Your task to perform on an android device: Open CNN.com Image 0: 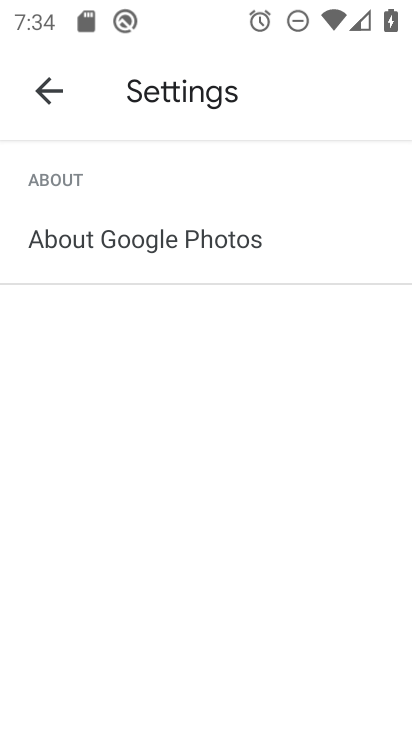
Step 0: press home button
Your task to perform on an android device: Open CNN.com Image 1: 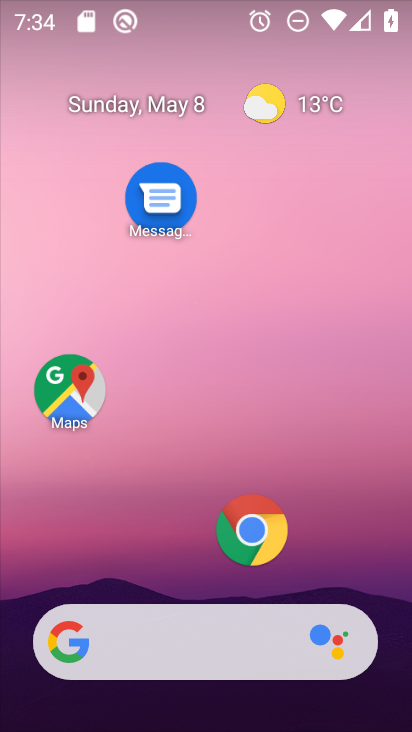
Step 1: click (258, 519)
Your task to perform on an android device: Open CNN.com Image 2: 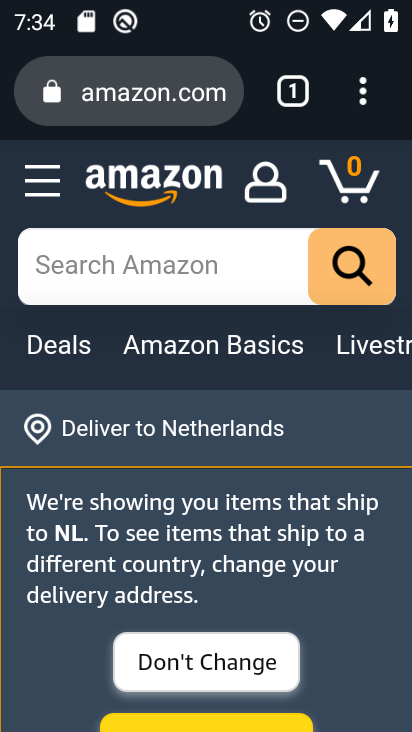
Step 2: press back button
Your task to perform on an android device: Open CNN.com Image 3: 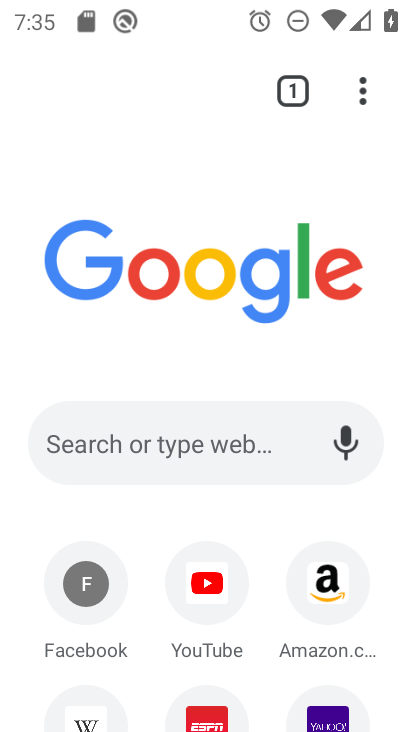
Step 3: click (184, 439)
Your task to perform on an android device: Open CNN.com Image 4: 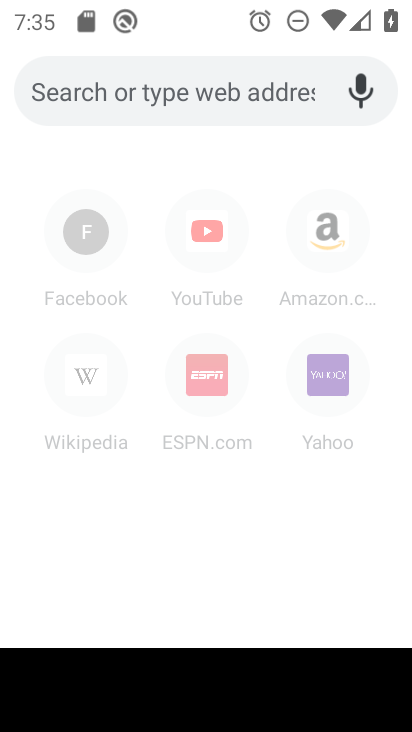
Step 4: type "cnn.com"
Your task to perform on an android device: Open CNN.com Image 5: 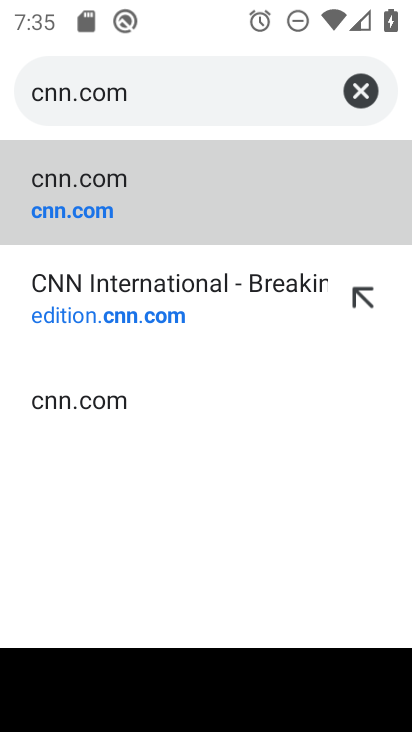
Step 5: click (168, 188)
Your task to perform on an android device: Open CNN.com Image 6: 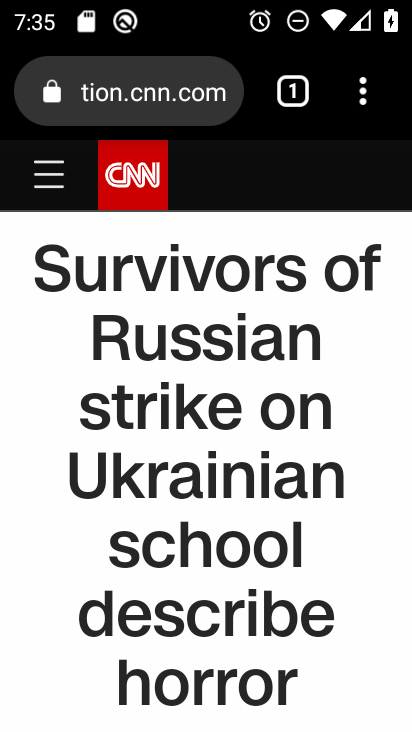
Step 6: task complete